Your task to perform on an android device: Check the settings for the Google Photos app Image 0: 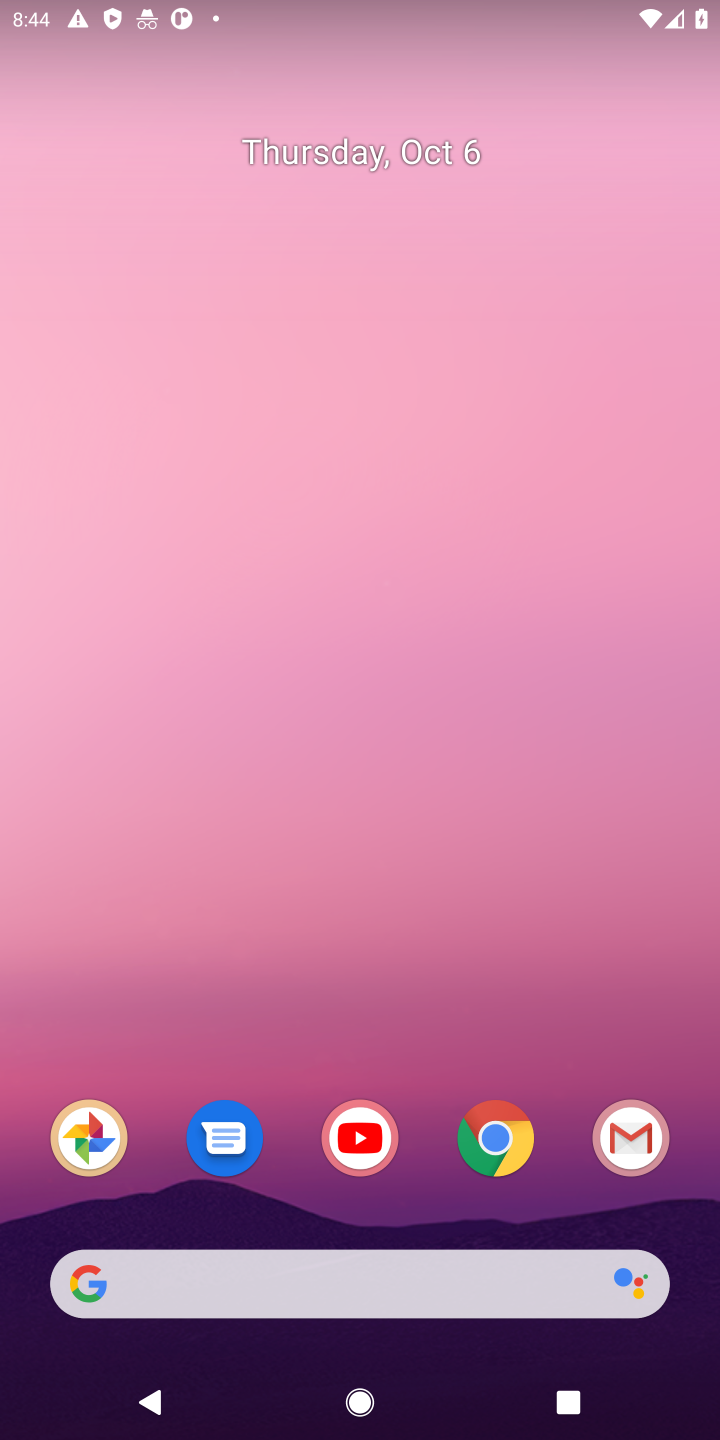
Step 0: drag from (388, 1239) to (719, 111)
Your task to perform on an android device: Check the settings for the Google Photos app Image 1: 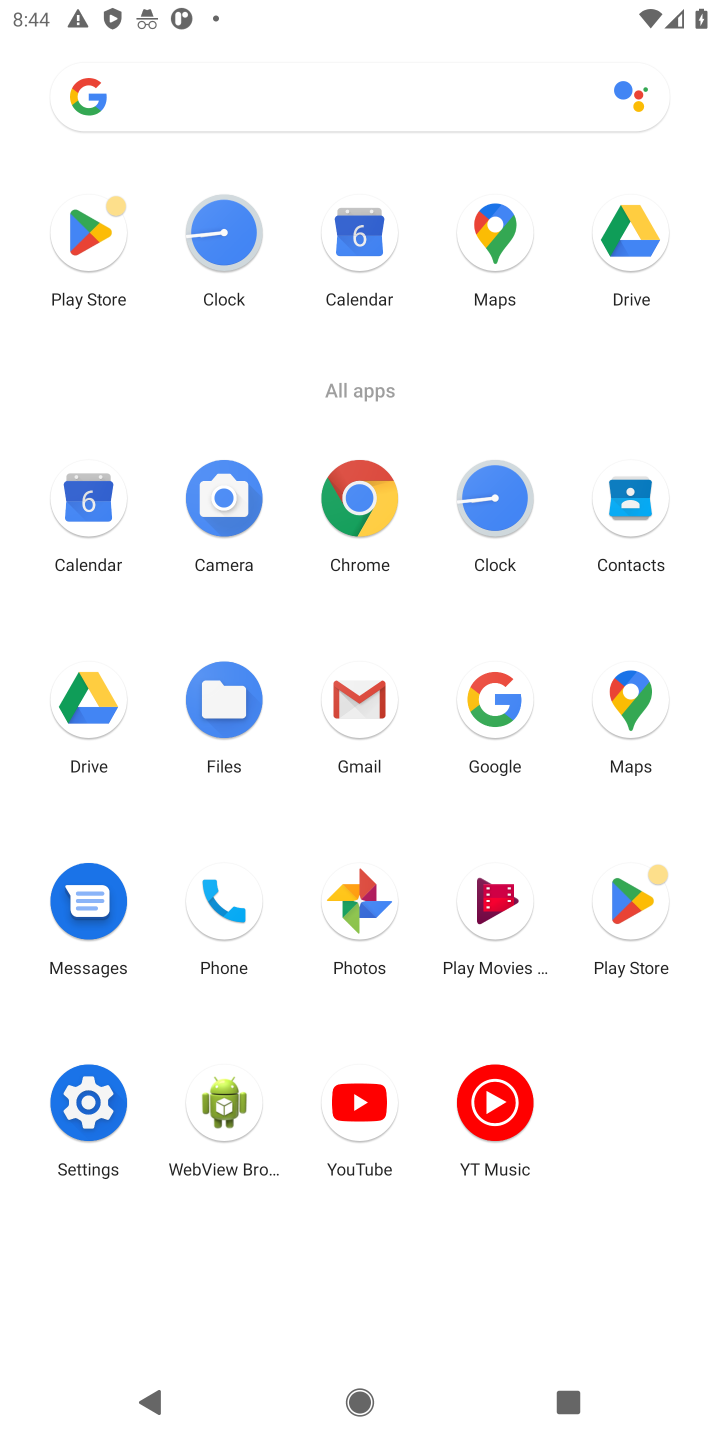
Step 1: click (362, 891)
Your task to perform on an android device: Check the settings for the Google Photos app Image 2: 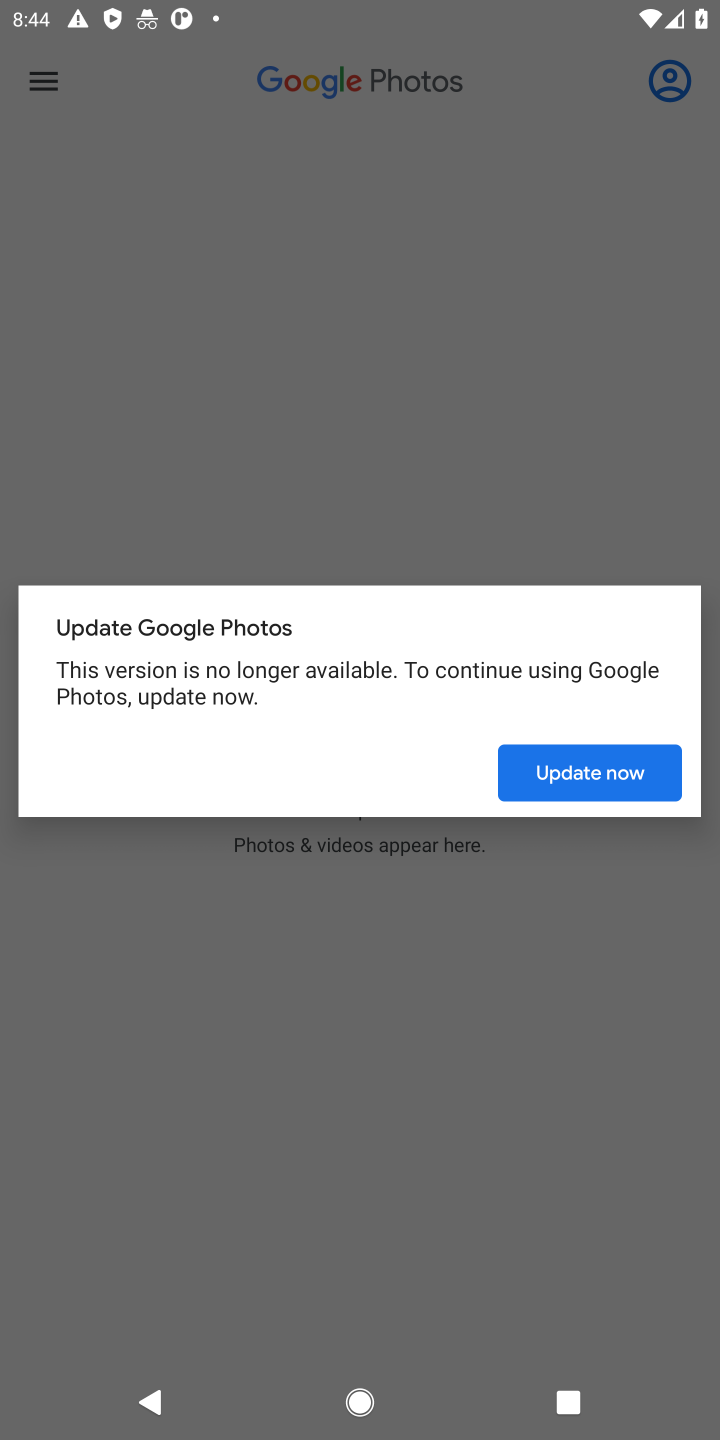
Step 2: click (592, 774)
Your task to perform on an android device: Check the settings for the Google Photos app Image 3: 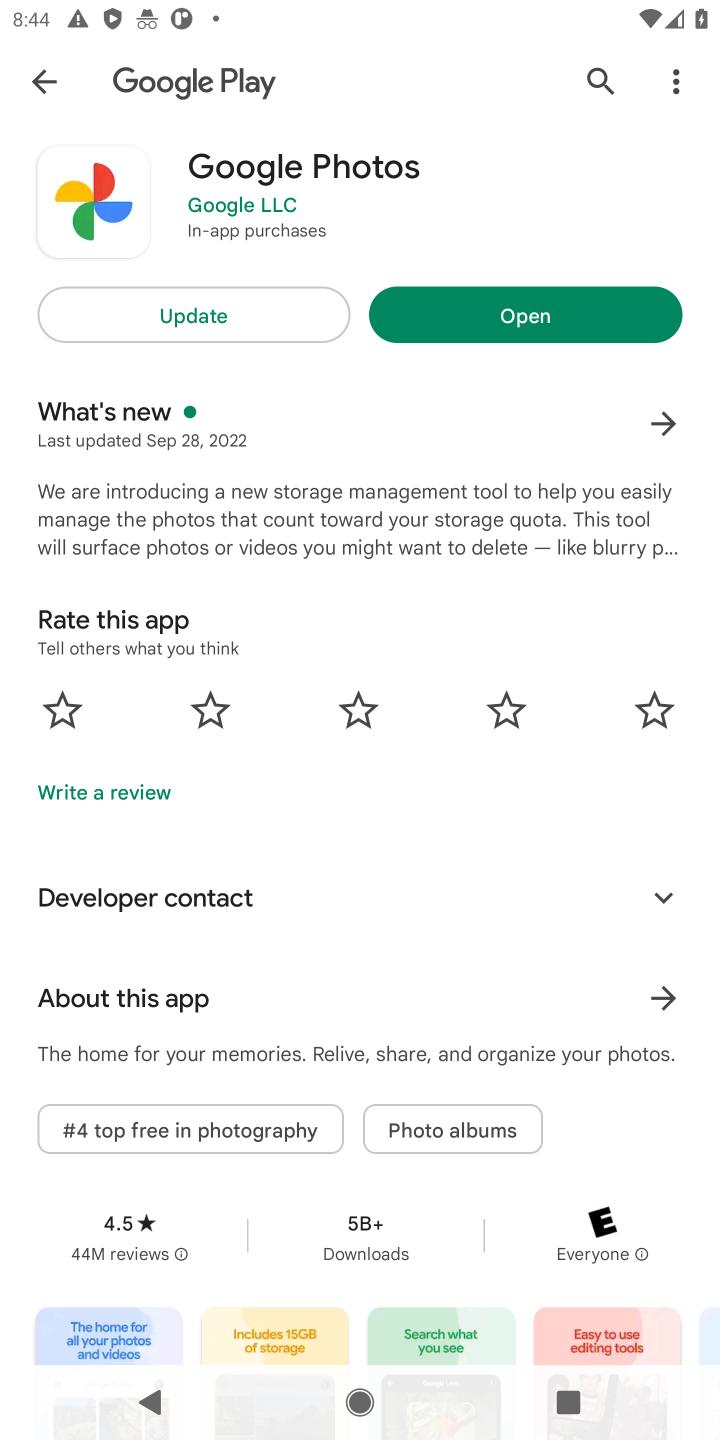
Step 3: click (249, 307)
Your task to perform on an android device: Check the settings for the Google Photos app Image 4: 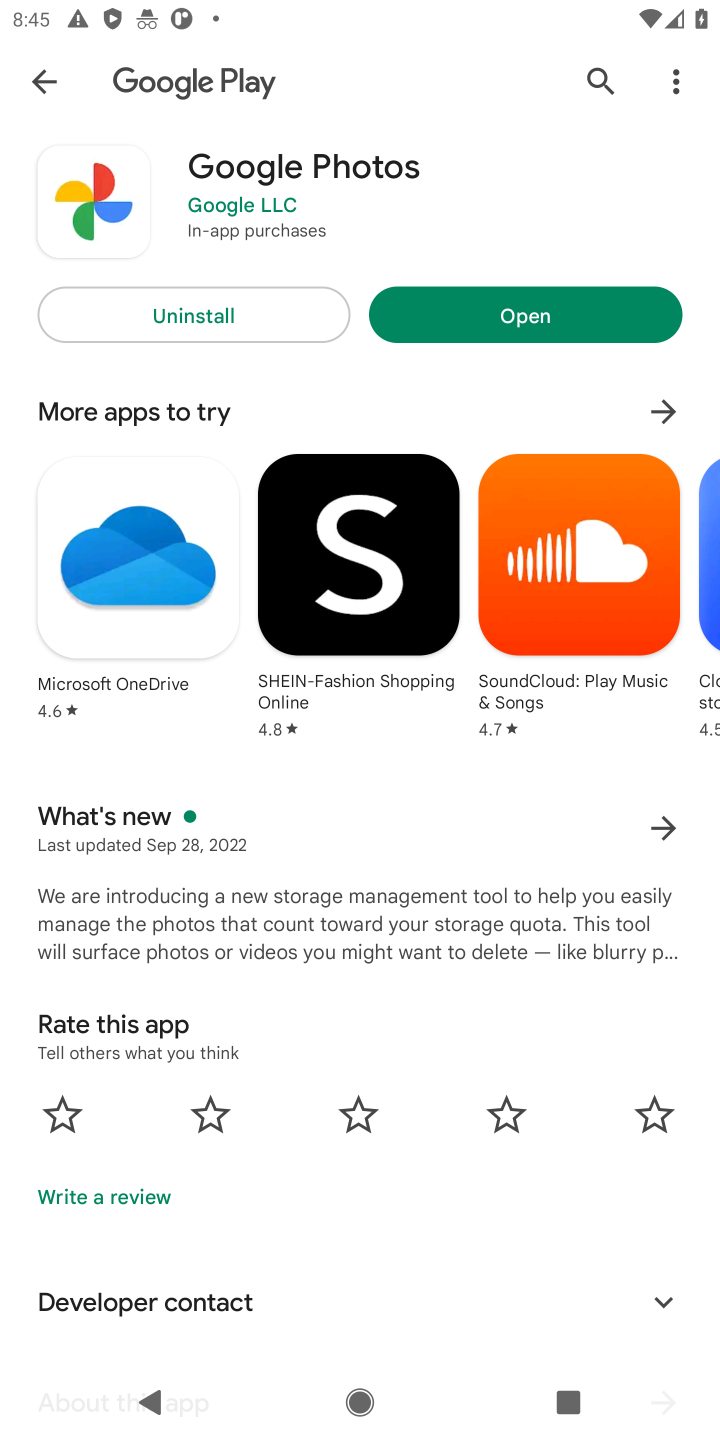
Step 4: click (512, 318)
Your task to perform on an android device: Check the settings for the Google Photos app Image 5: 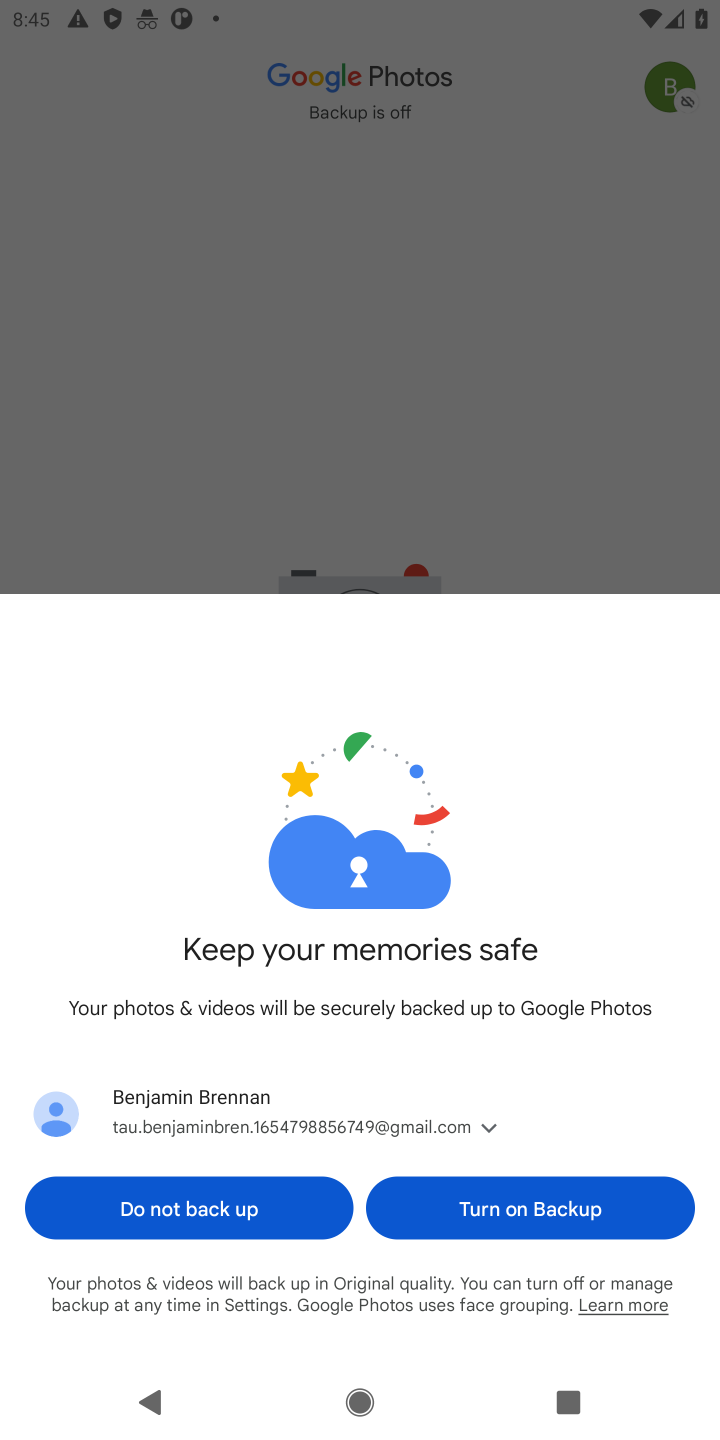
Step 5: click (463, 1199)
Your task to perform on an android device: Check the settings for the Google Photos app Image 6: 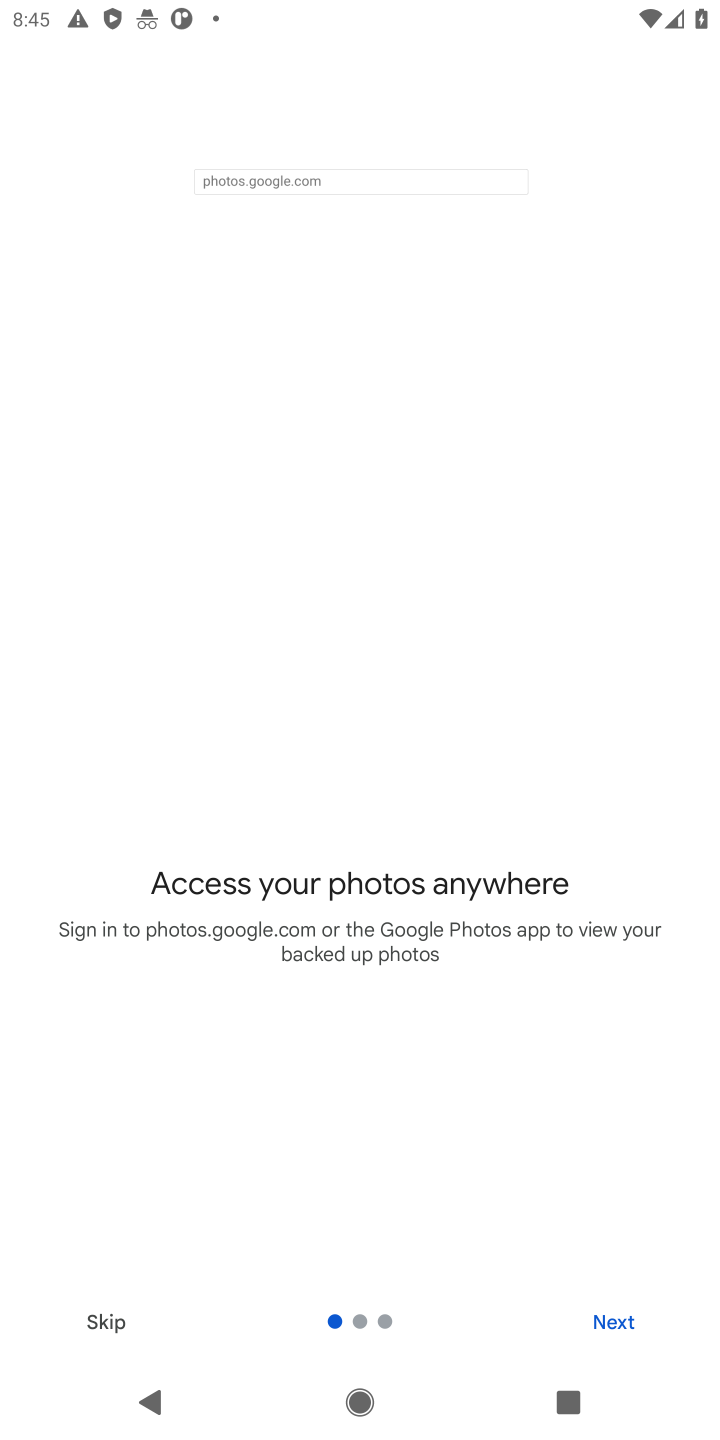
Step 6: click (624, 1317)
Your task to perform on an android device: Check the settings for the Google Photos app Image 7: 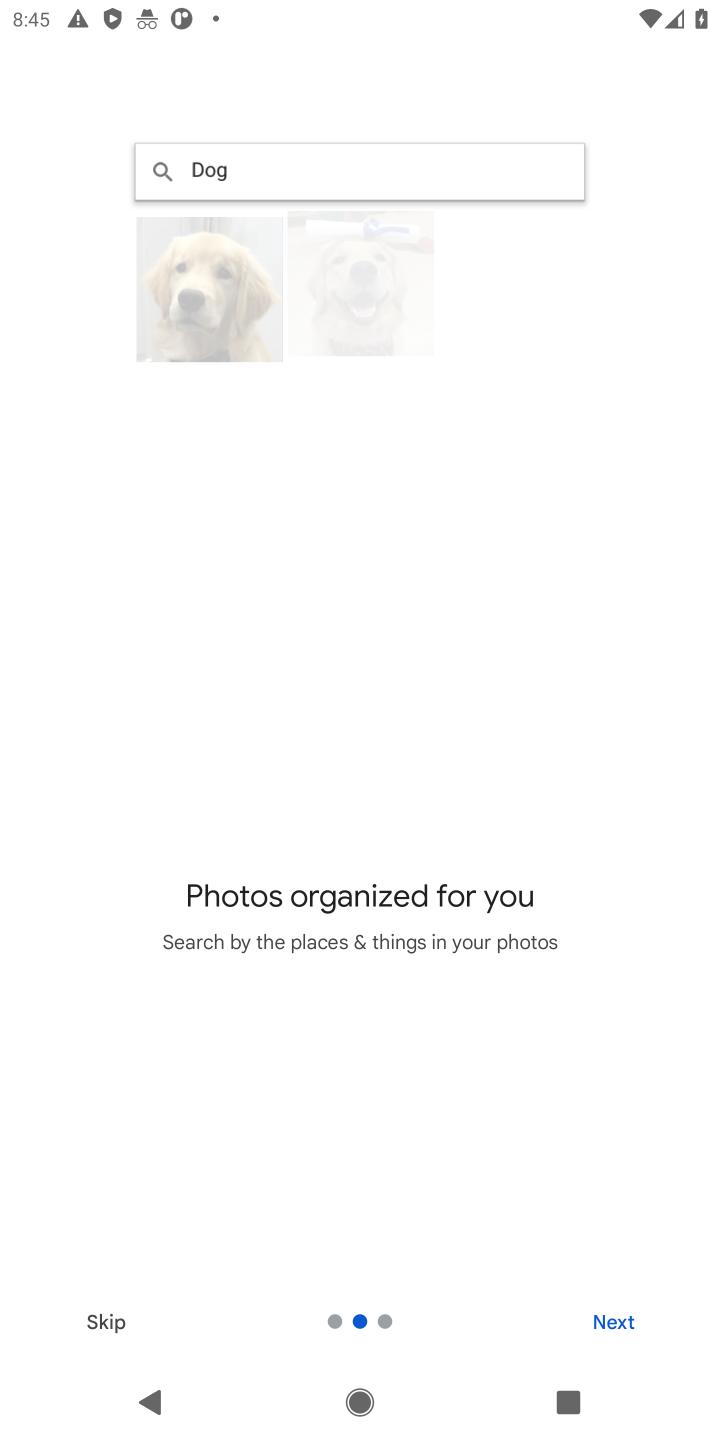
Step 7: click (624, 1317)
Your task to perform on an android device: Check the settings for the Google Photos app Image 8: 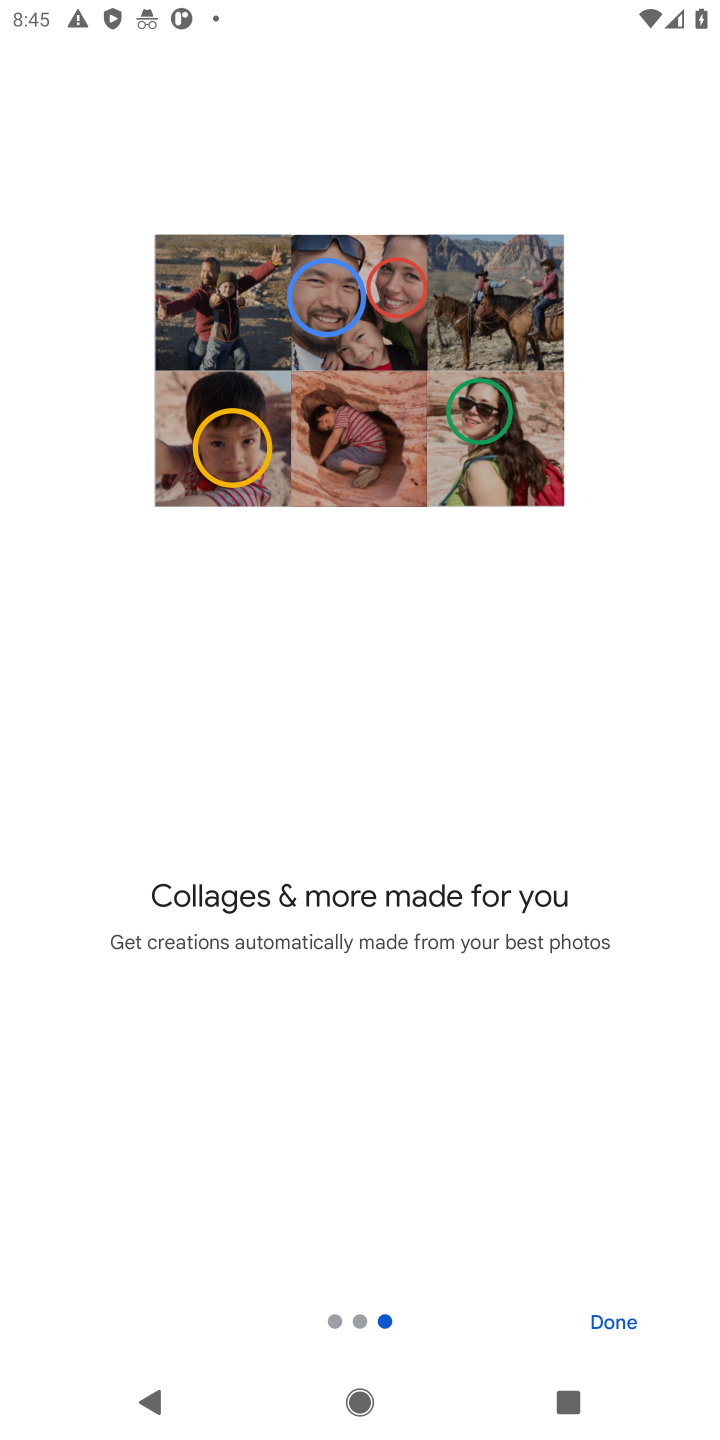
Step 8: click (624, 1317)
Your task to perform on an android device: Check the settings for the Google Photos app Image 9: 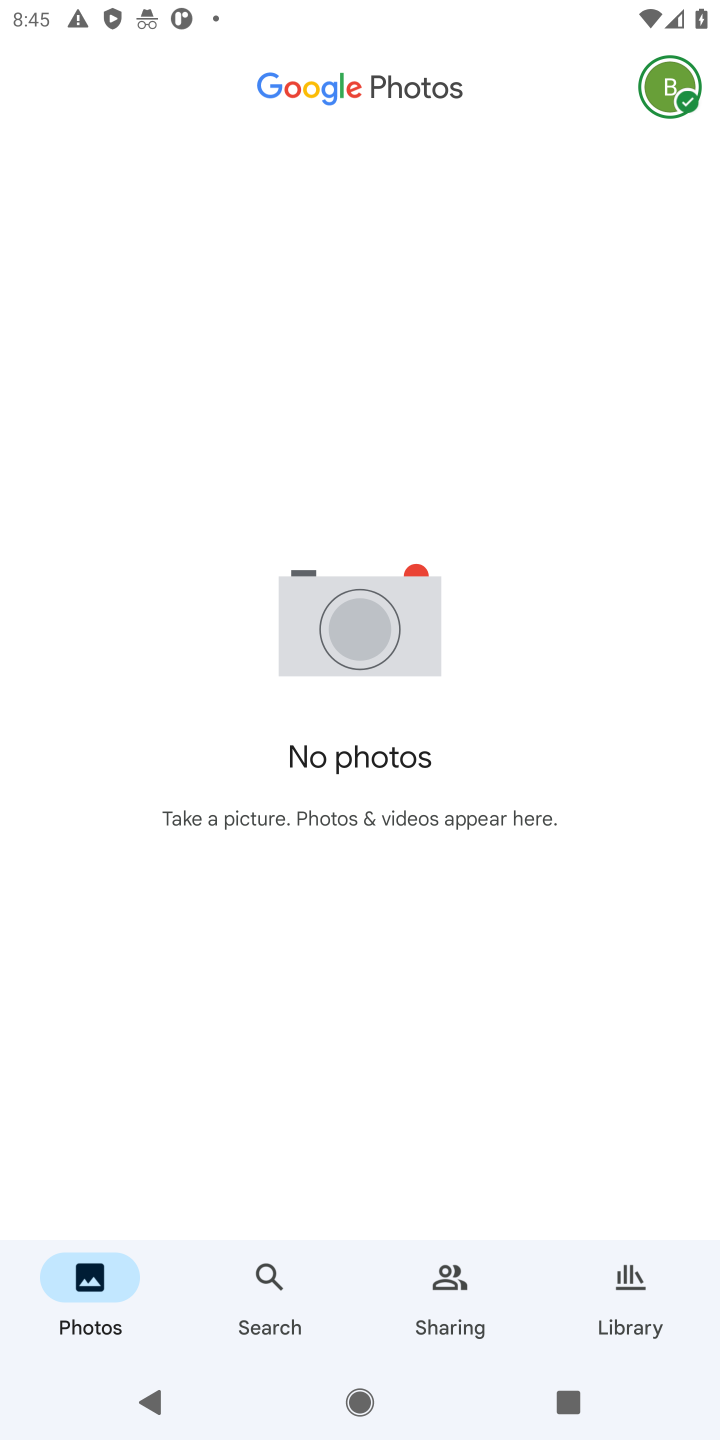
Step 9: click (663, 108)
Your task to perform on an android device: Check the settings for the Google Photos app Image 10: 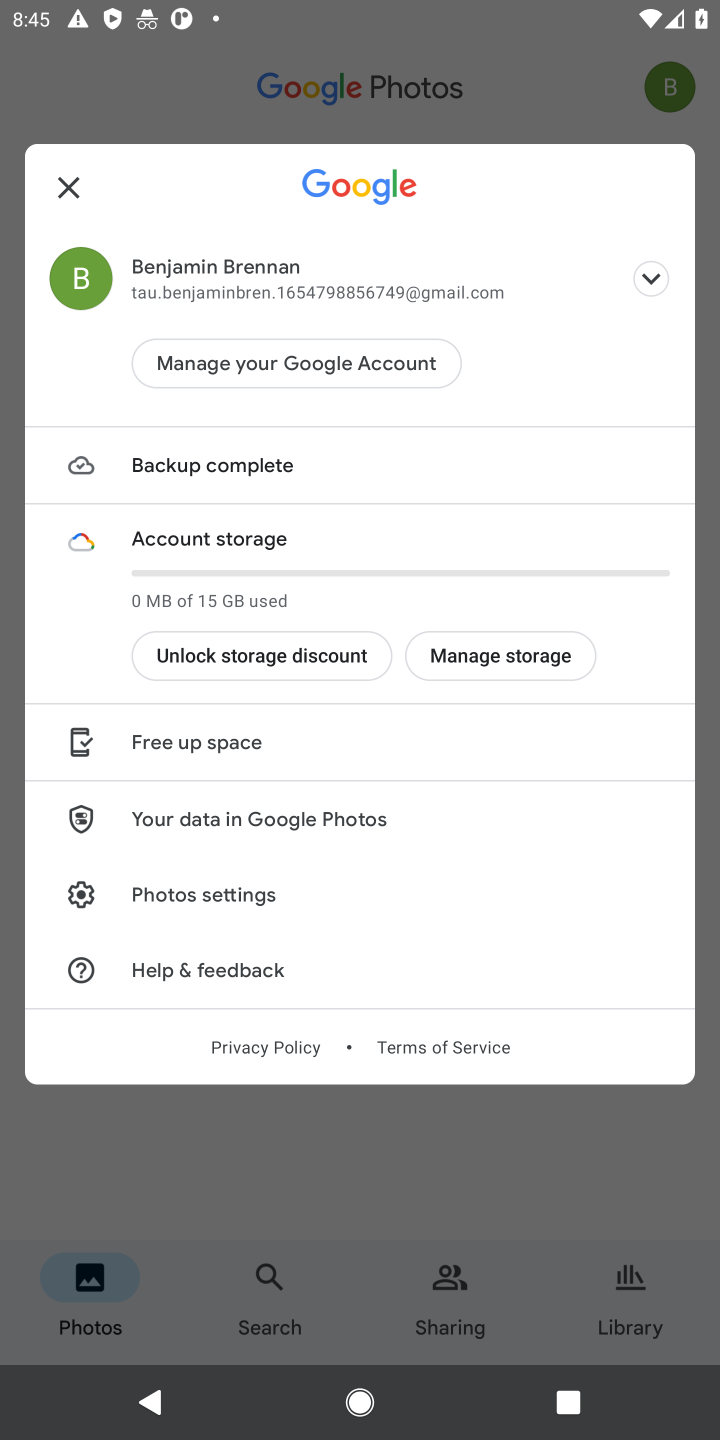
Step 10: click (188, 900)
Your task to perform on an android device: Check the settings for the Google Photos app Image 11: 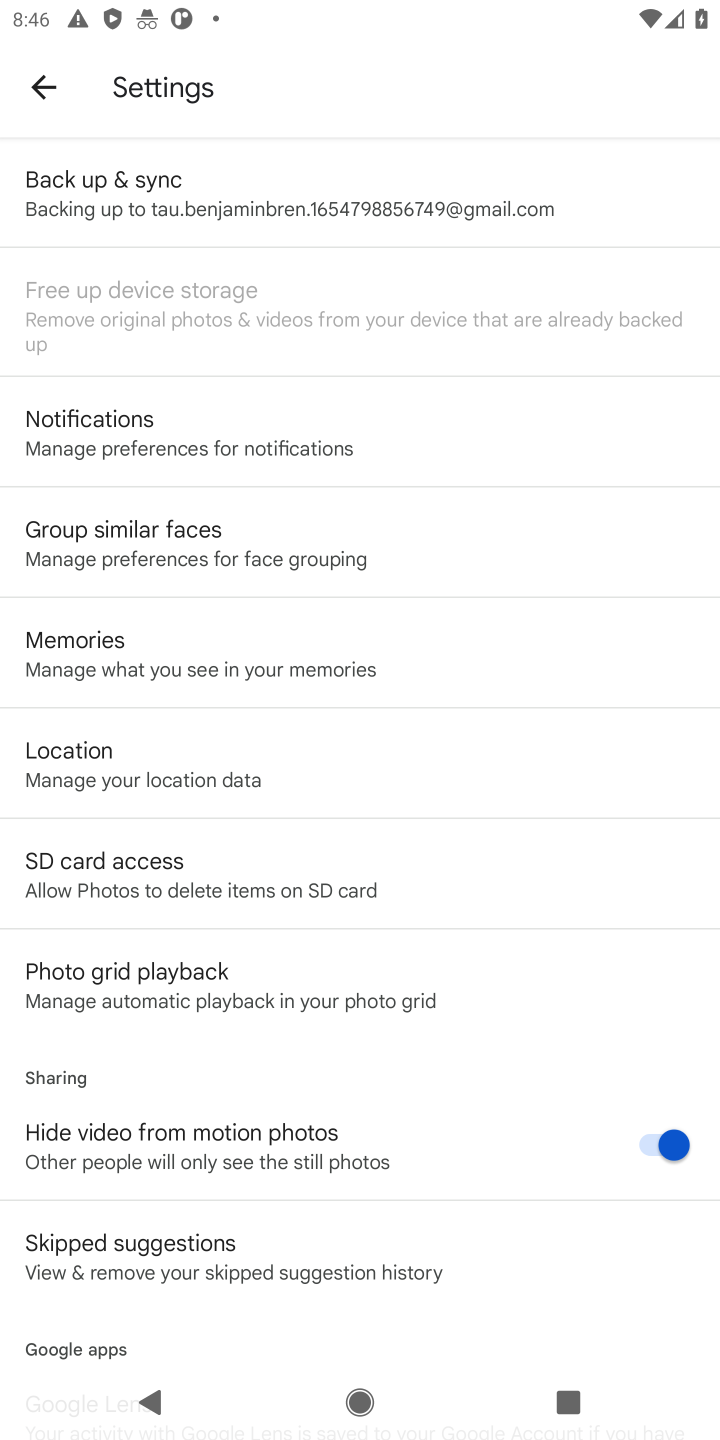
Step 11: task complete